Your task to perform on an android device: Open Youtube and go to "Your channel" Image 0: 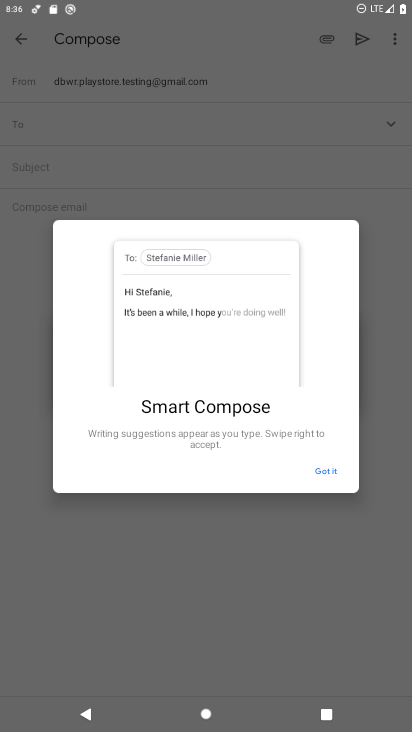
Step 0: press home button
Your task to perform on an android device: Open Youtube and go to "Your channel" Image 1: 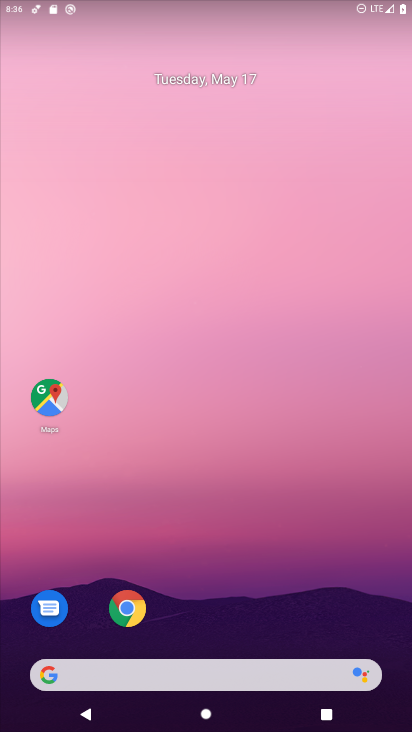
Step 1: drag from (247, 583) to (254, 88)
Your task to perform on an android device: Open Youtube and go to "Your channel" Image 2: 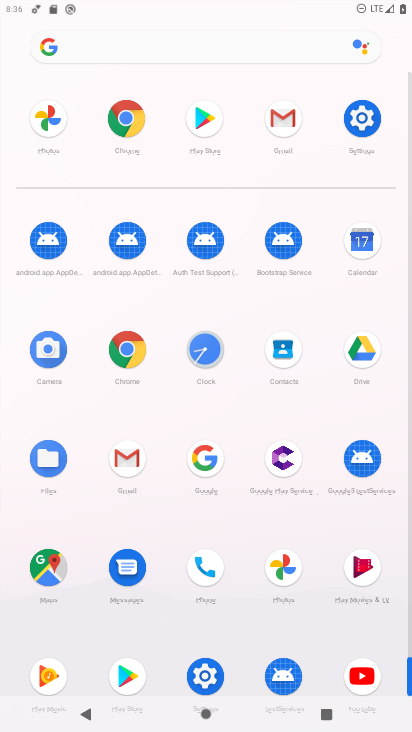
Step 2: click (358, 668)
Your task to perform on an android device: Open Youtube and go to "Your channel" Image 3: 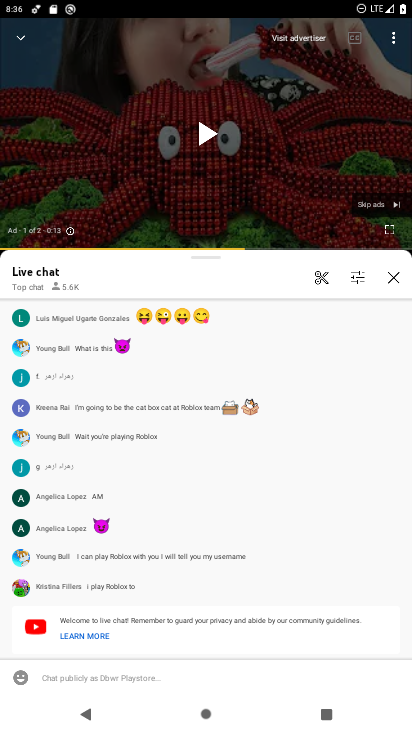
Step 3: click (15, 33)
Your task to perform on an android device: Open Youtube and go to "Your channel" Image 4: 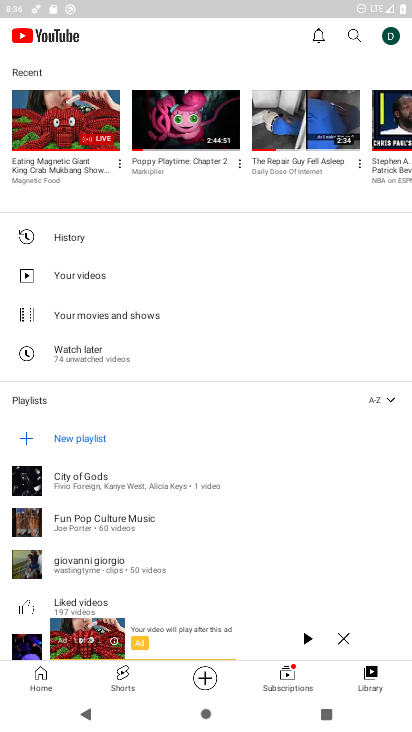
Step 4: click (344, 638)
Your task to perform on an android device: Open Youtube and go to "Your channel" Image 5: 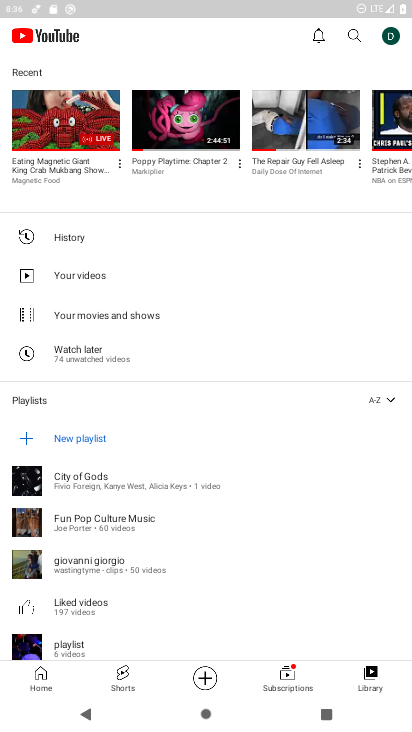
Step 5: click (40, 675)
Your task to perform on an android device: Open Youtube and go to "Your channel" Image 6: 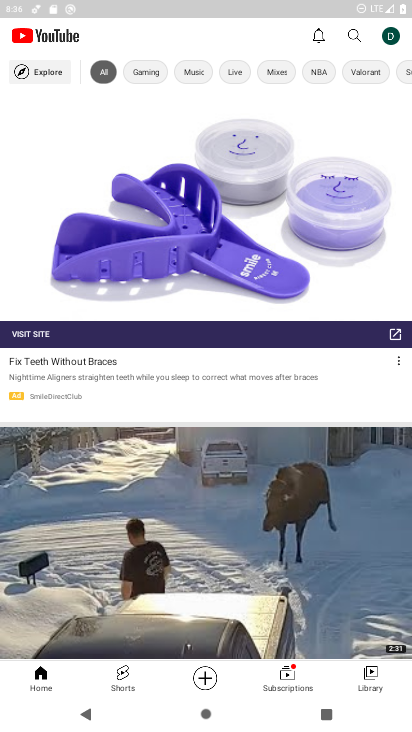
Step 6: click (392, 44)
Your task to perform on an android device: Open Youtube and go to "Your channel" Image 7: 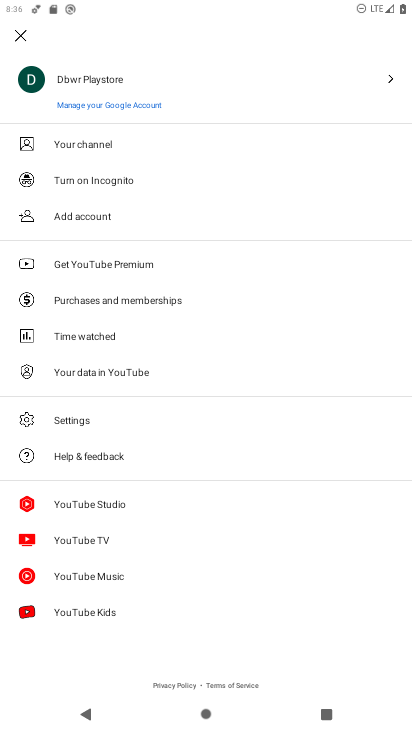
Step 7: click (69, 148)
Your task to perform on an android device: Open Youtube and go to "Your channel" Image 8: 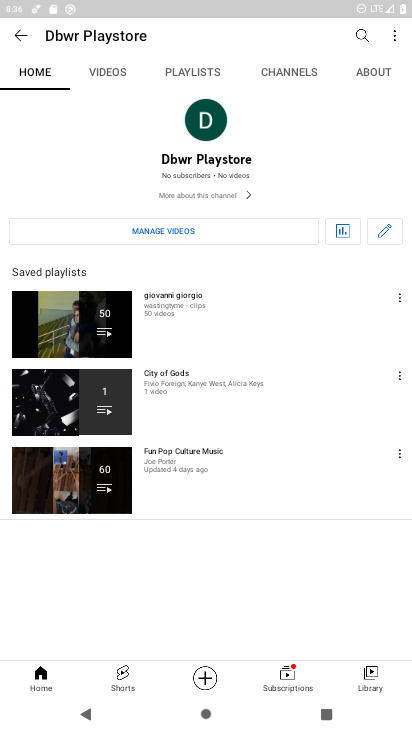
Step 8: task complete